Your task to perform on an android device: Set the phone to "Do not disturb". Image 0: 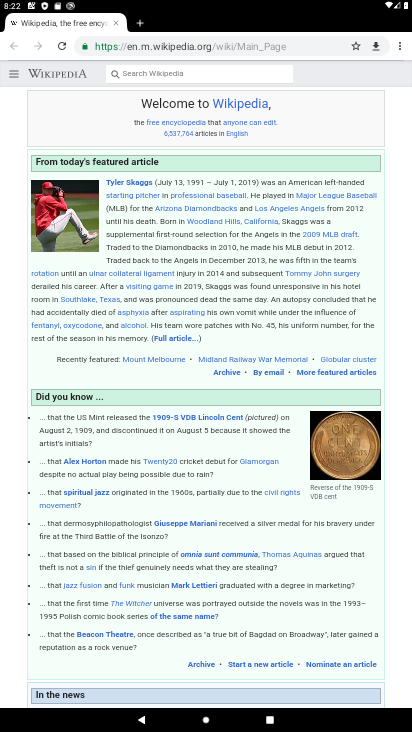
Step 0: press home button
Your task to perform on an android device: Set the phone to "Do not disturb". Image 1: 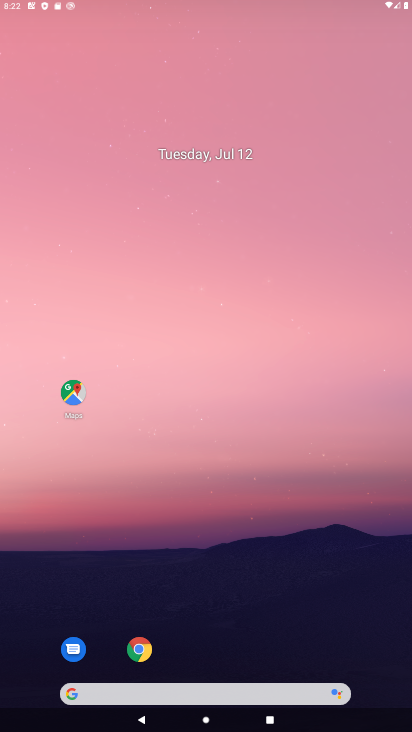
Step 1: drag from (195, 685) to (259, 80)
Your task to perform on an android device: Set the phone to "Do not disturb". Image 2: 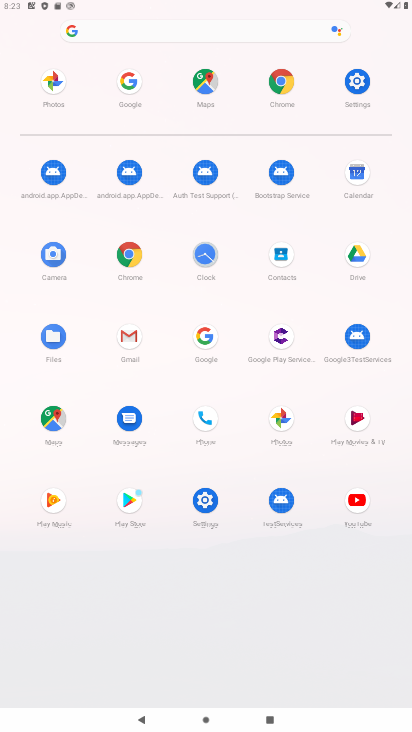
Step 2: click (360, 78)
Your task to perform on an android device: Set the phone to "Do not disturb". Image 3: 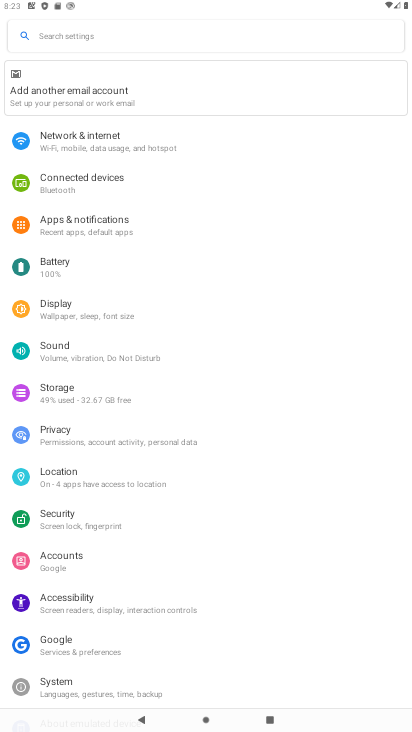
Step 3: drag from (149, 653) to (199, 171)
Your task to perform on an android device: Set the phone to "Do not disturb". Image 4: 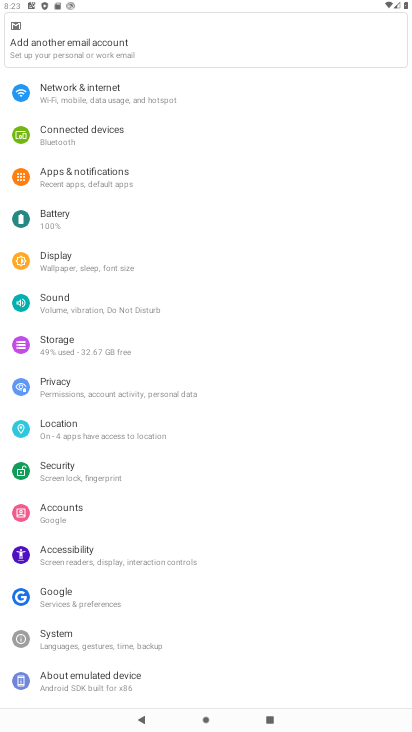
Step 4: click (99, 299)
Your task to perform on an android device: Set the phone to "Do not disturb". Image 5: 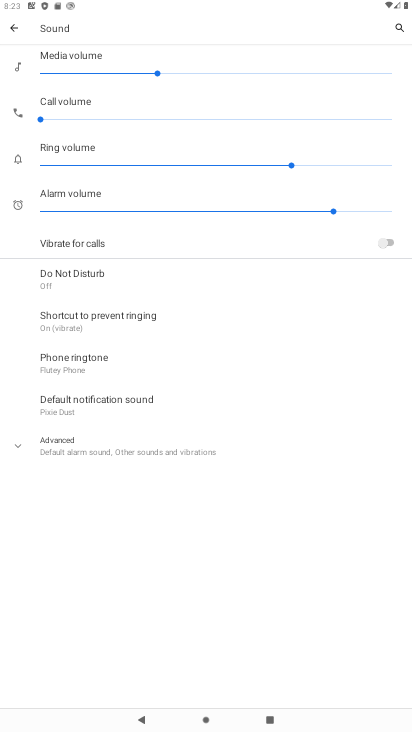
Step 5: click (75, 277)
Your task to perform on an android device: Set the phone to "Do not disturb". Image 6: 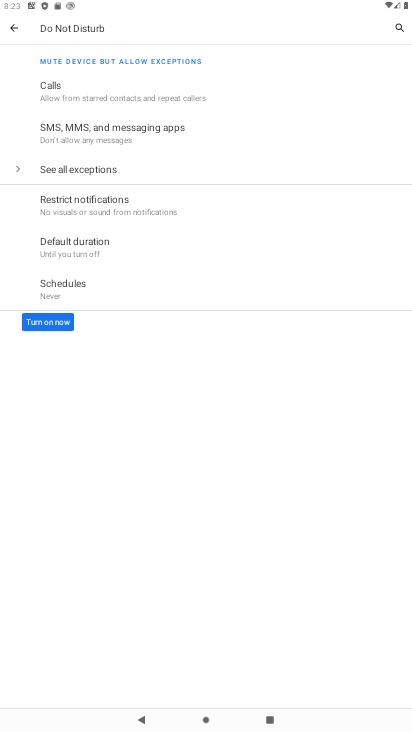
Step 6: click (47, 317)
Your task to perform on an android device: Set the phone to "Do not disturb". Image 7: 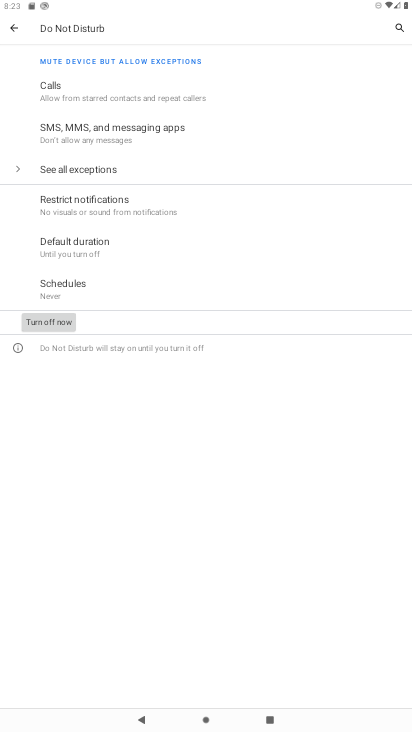
Step 7: task complete